Your task to perform on an android device: add a label to a message in the gmail app Image 0: 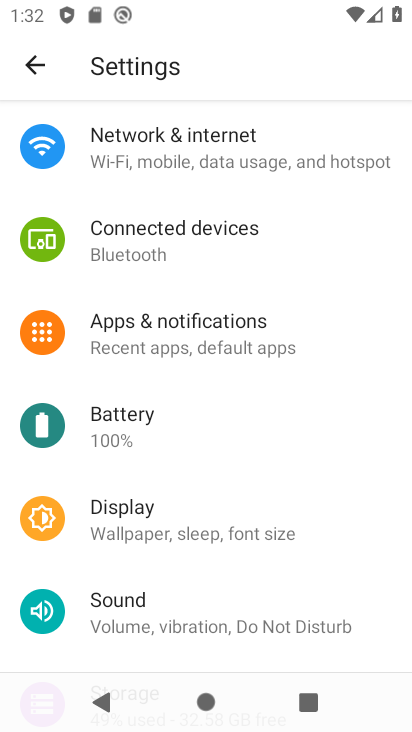
Step 0: press home button
Your task to perform on an android device: add a label to a message in the gmail app Image 1: 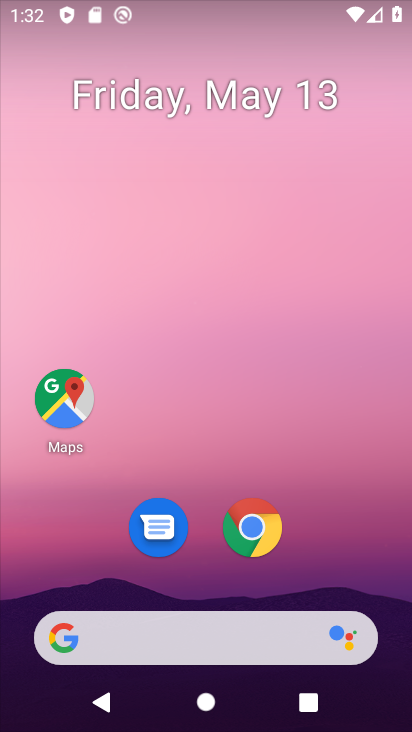
Step 1: drag from (185, 566) to (209, 536)
Your task to perform on an android device: add a label to a message in the gmail app Image 2: 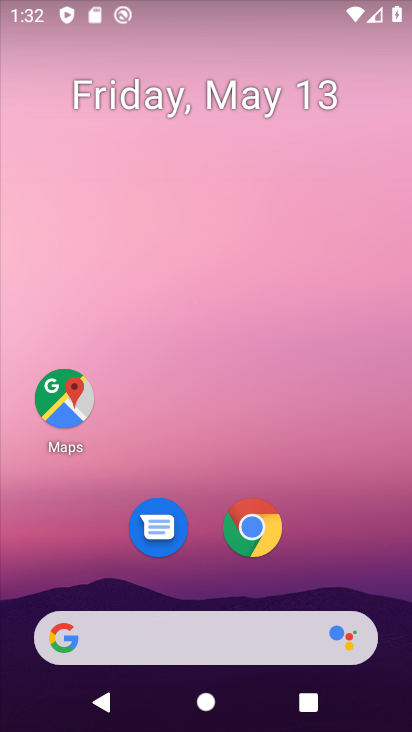
Step 2: drag from (187, 600) to (335, 241)
Your task to perform on an android device: add a label to a message in the gmail app Image 3: 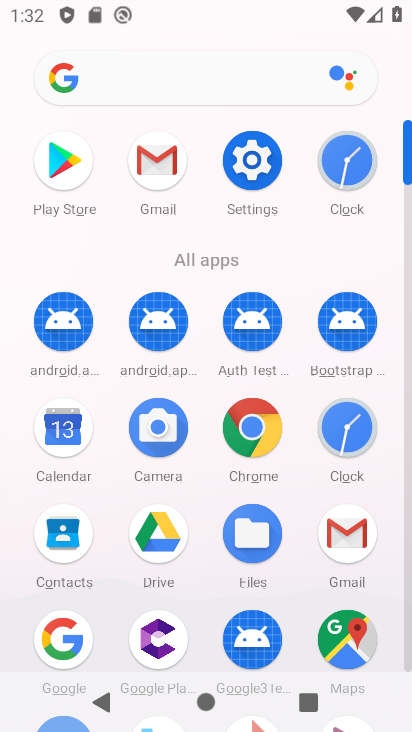
Step 3: click (346, 541)
Your task to perform on an android device: add a label to a message in the gmail app Image 4: 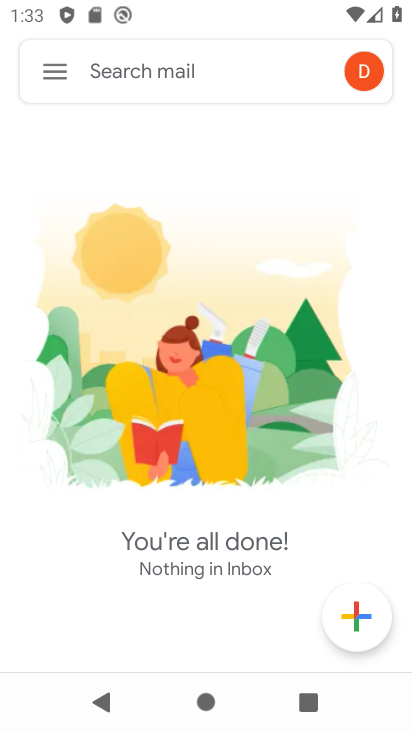
Step 4: task complete